Your task to perform on an android device: Open notification settings Image 0: 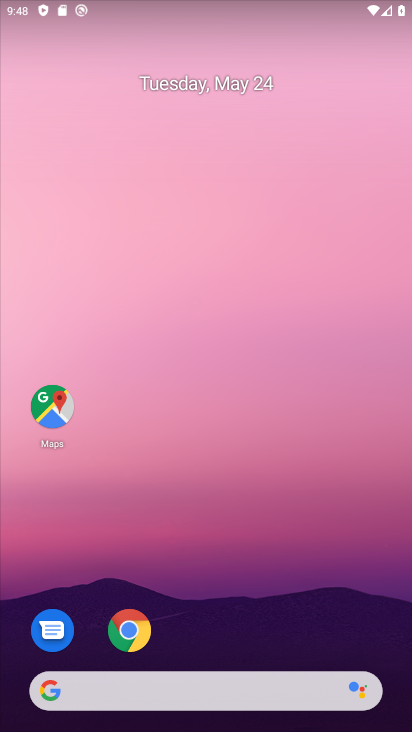
Step 0: drag from (230, 645) to (261, 125)
Your task to perform on an android device: Open notification settings Image 1: 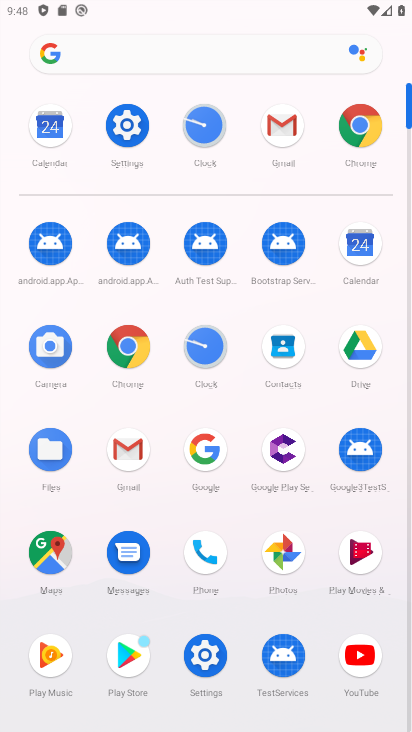
Step 1: click (129, 115)
Your task to perform on an android device: Open notification settings Image 2: 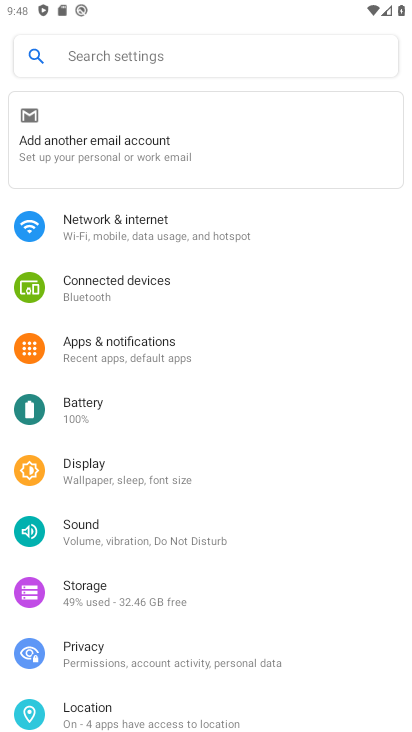
Step 2: click (160, 352)
Your task to perform on an android device: Open notification settings Image 3: 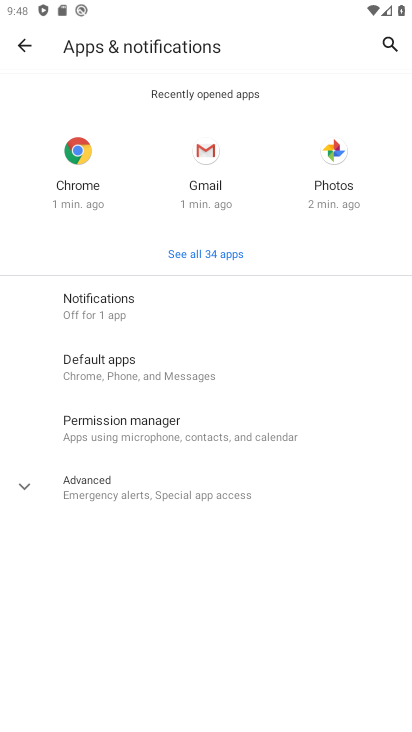
Step 3: click (146, 301)
Your task to perform on an android device: Open notification settings Image 4: 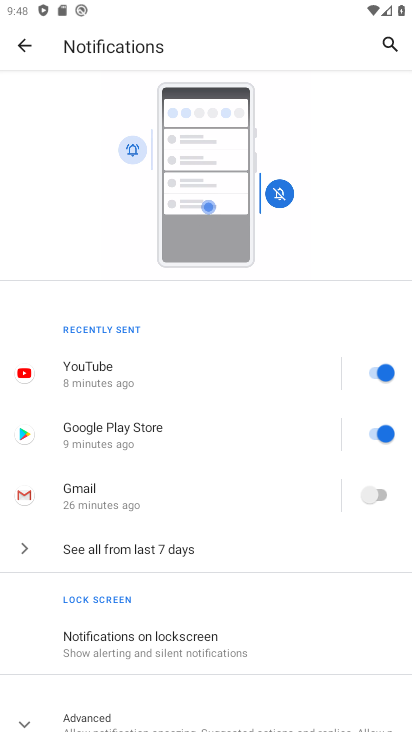
Step 4: drag from (174, 640) to (215, 379)
Your task to perform on an android device: Open notification settings Image 5: 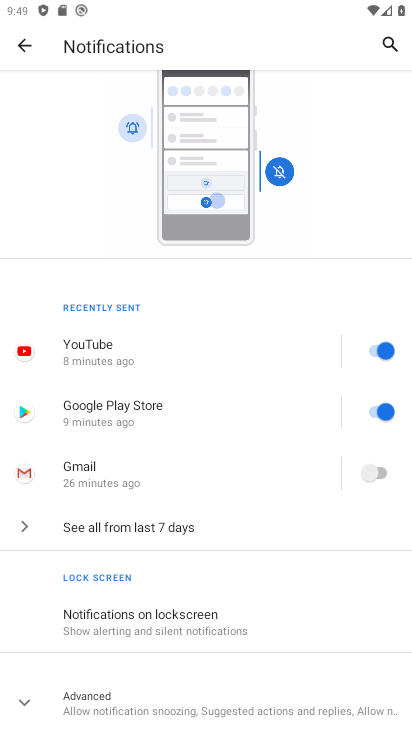
Step 5: drag from (193, 605) to (232, 284)
Your task to perform on an android device: Open notification settings Image 6: 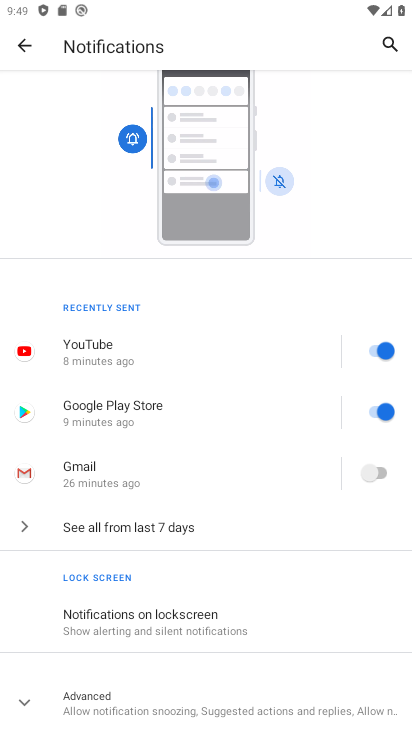
Step 6: drag from (204, 651) to (225, 381)
Your task to perform on an android device: Open notification settings Image 7: 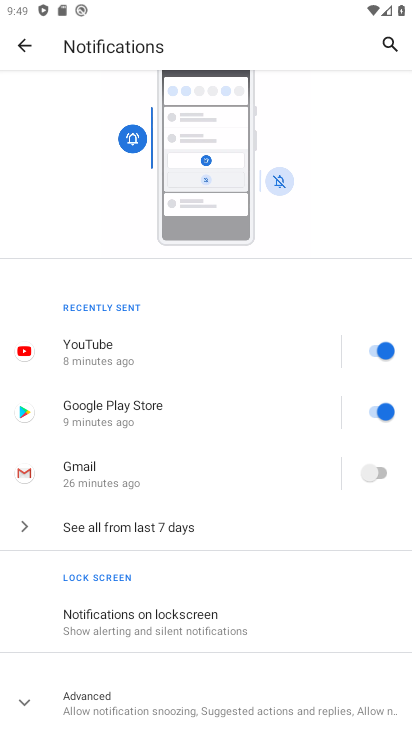
Step 7: click (27, 700)
Your task to perform on an android device: Open notification settings Image 8: 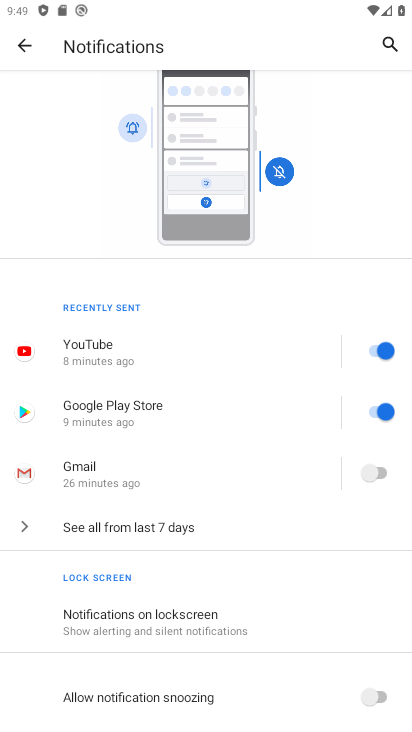
Step 8: task complete